Your task to perform on an android device: Show me productivity apps on the Play Store Image 0: 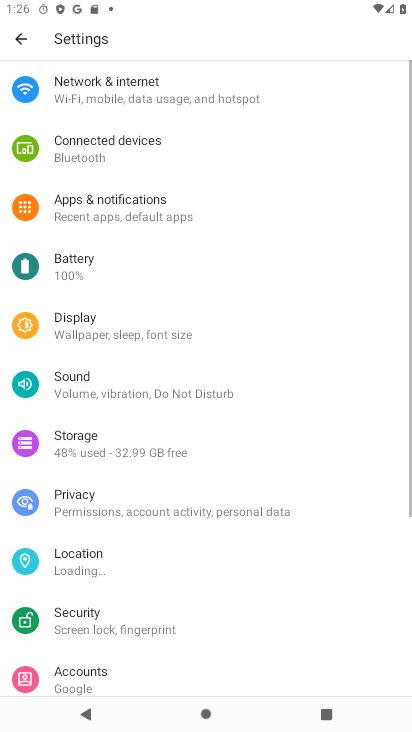
Step 0: press home button
Your task to perform on an android device: Show me productivity apps on the Play Store Image 1: 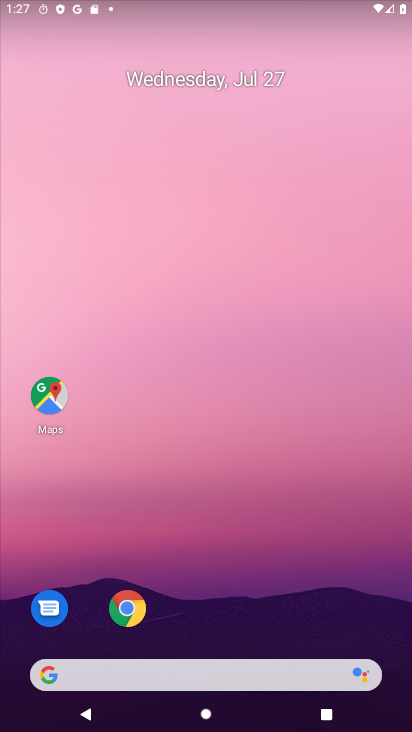
Step 1: drag from (204, 610) to (181, 94)
Your task to perform on an android device: Show me productivity apps on the Play Store Image 2: 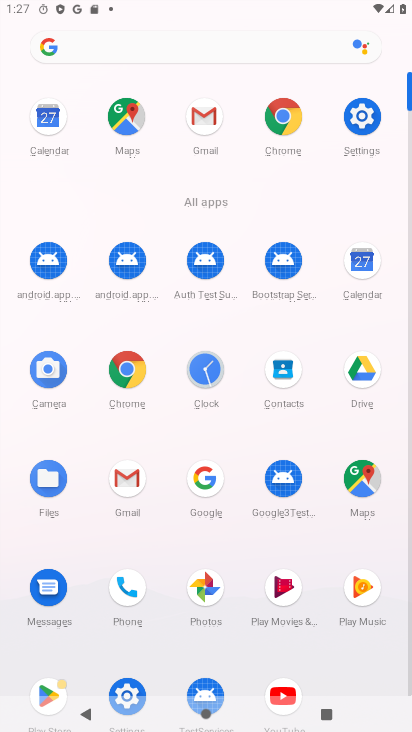
Step 2: drag from (124, 582) to (151, 356)
Your task to perform on an android device: Show me productivity apps on the Play Store Image 3: 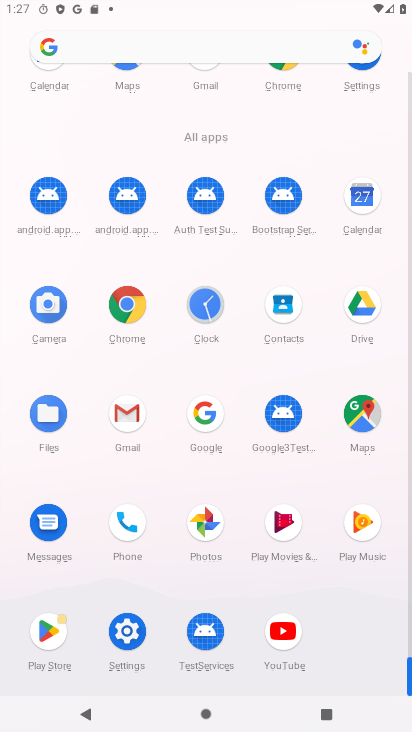
Step 3: click (47, 648)
Your task to perform on an android device: Show me productivity apps on the Play Store Image 4: 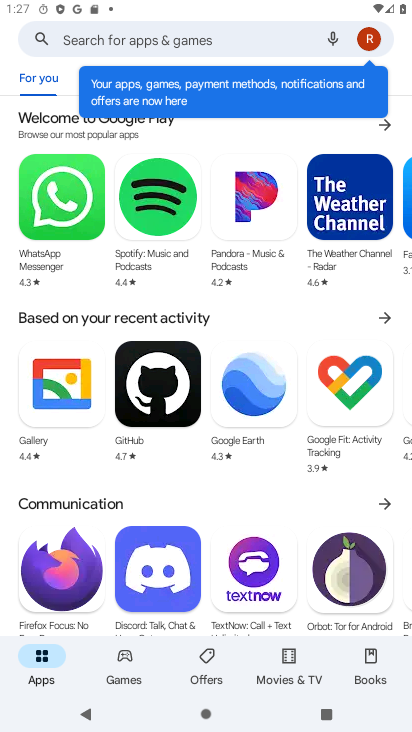
Step 4: click (41, 670)
Your task to perform on an android device: Show me productivity apps on the Play Store Image 5: 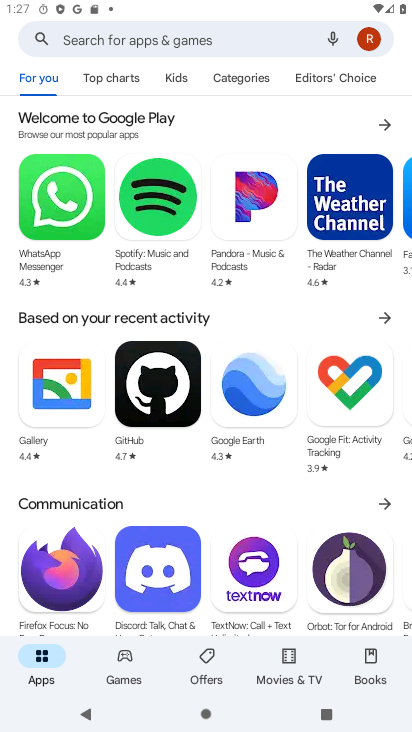
Step 5: click (239, 67)
Your task to perform on an android device: Show me productivity apps on the Play Store Image 6: 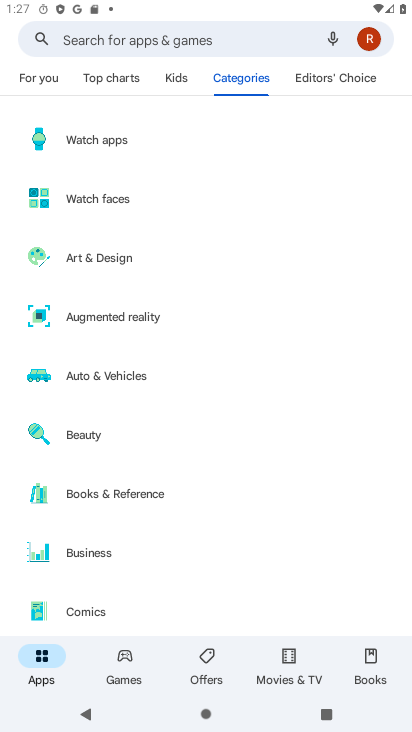
Step 6: drag from (71, 451) to (186, 85)
Your task to perform on an android device: Show me productivity apps on the Play Store Image 7: 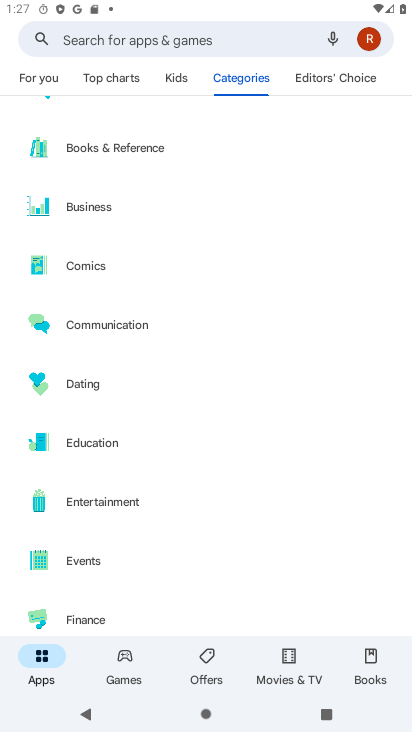
Step 7: drag from (91, 490) to (183, 111)
Your task to perform on an android device: Show me productivity apps on the Play Store Image 8: 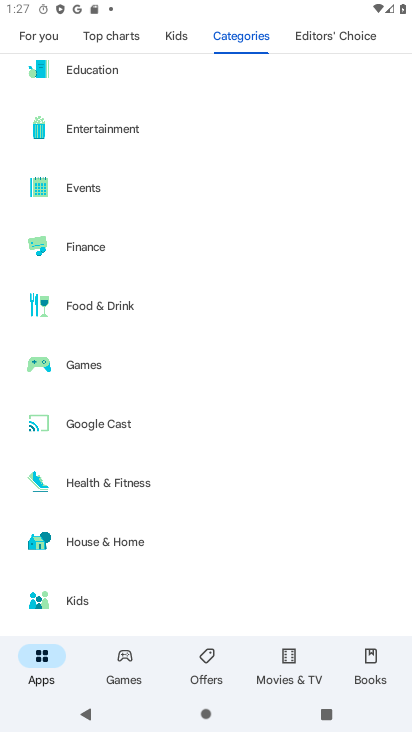
Step 8: drag from (107, 530) to (205, 12)
Your task to perform on an android device: Show me productivity apps on the Play Store Image 9: 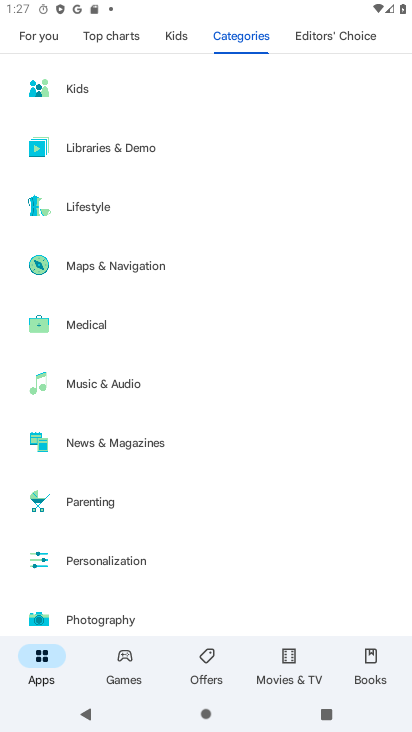
Step 9: drag from (87, 560) to (137, 180)
Your task to perform on an android device: Show me productivity apps on the Play Store Image 10: 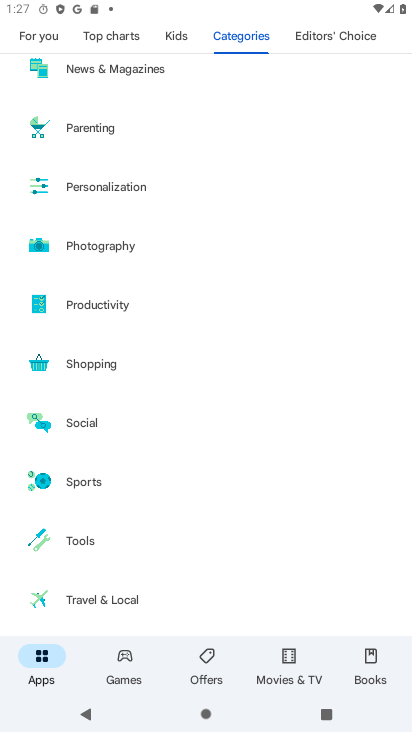
Step 10: click (90, 306)
Your task to perform on an android device: Show me productivity apps on the Play Store Image 11: 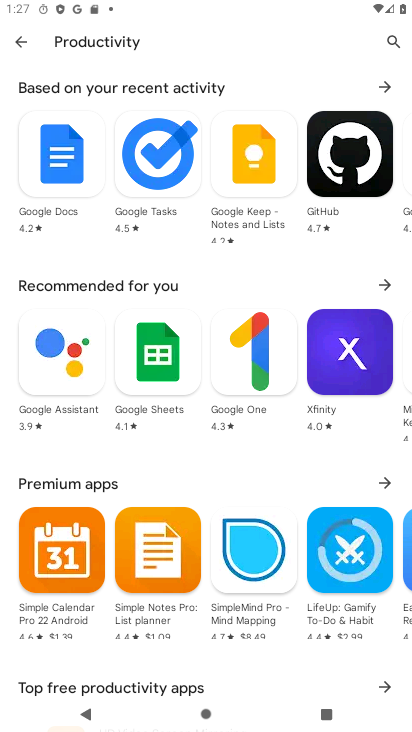
Step 11: task complete